Your task to perform on an android device: refresh tabs in the chrome app Image 0: 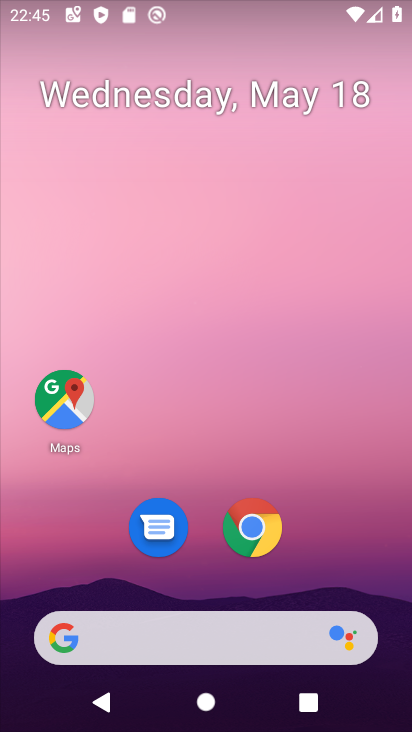
Step 0: click (251, 523)
Your task to perform on an android device: refresh tabs in the chrome app Image 1: 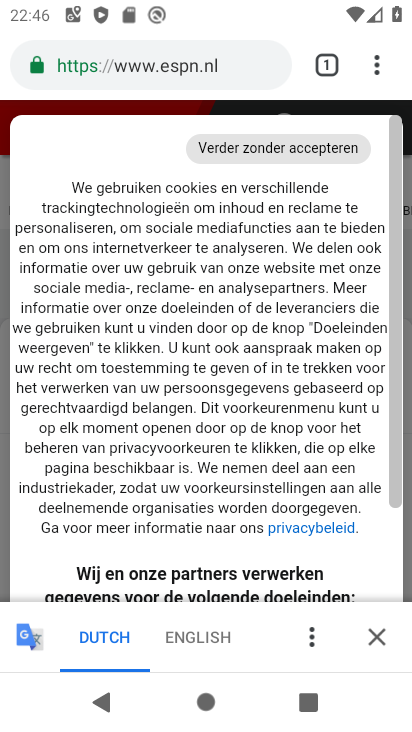
Step 1: click (323, 72)
Your task to perform on an android device: refresh tabs in the chrome app Image 2: 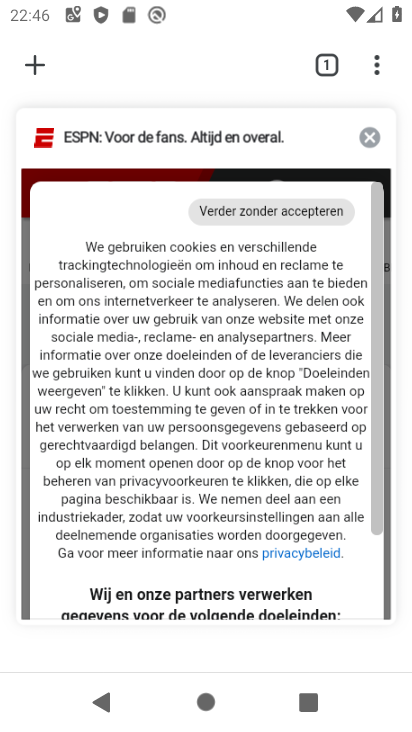
Step 2: click (376, 68)
Your task to perform on an android device: refresh tabs in the chrome app Image 3: 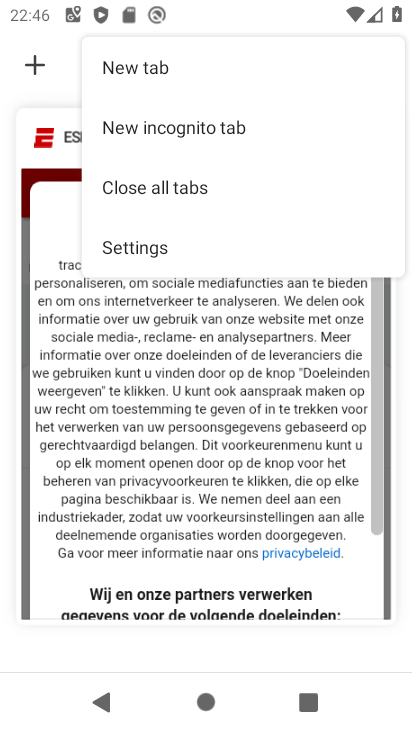
Step 3: click (143, 61)
Your task to perform on an android device: refresh tabs in the chrome app Image 4: 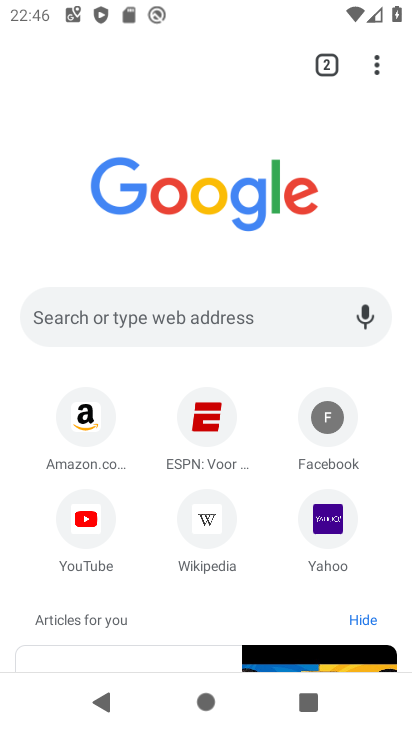
Step 4: click (384, 75)
Your task to perform on an android device: refresh tabs in the chrome app Image 5: 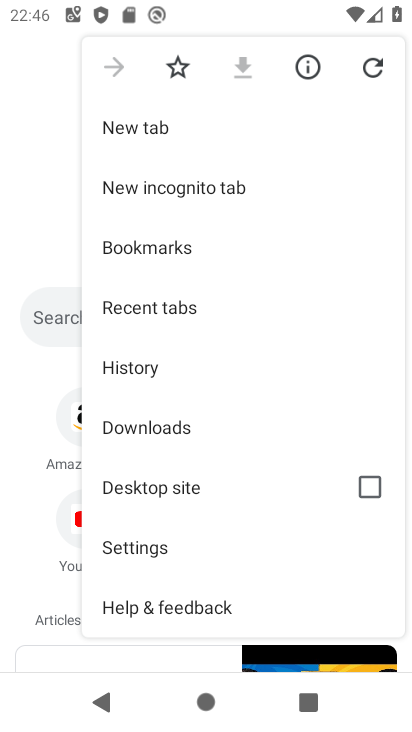
Step 5: click (379, 75)
Your task to perform on an android device: refresh tabs in the chrome app Image 6: 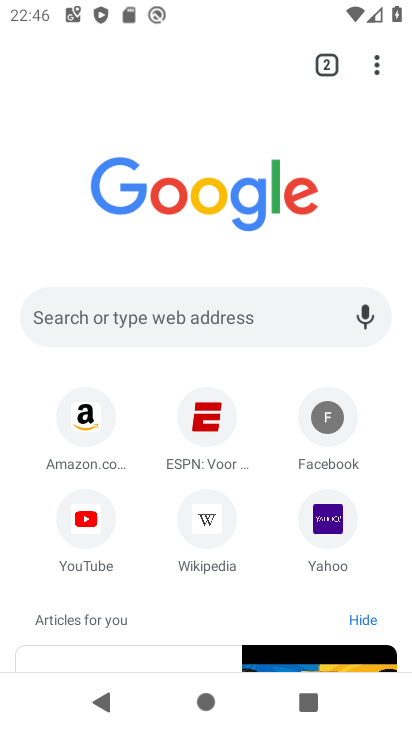
Step 6: task complete